Your task to perform on an android device: clear history in the chrome app Image 0: 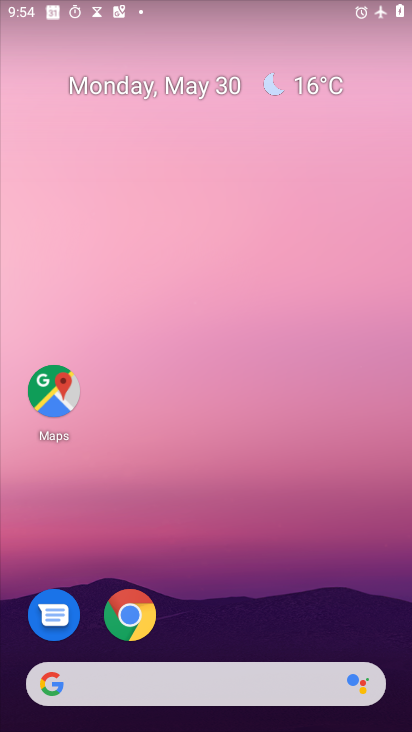
Step 0: drag from (360, 519) to (281, 3)
Your task to perform on an android device: clear history in the chrome app Image 1: 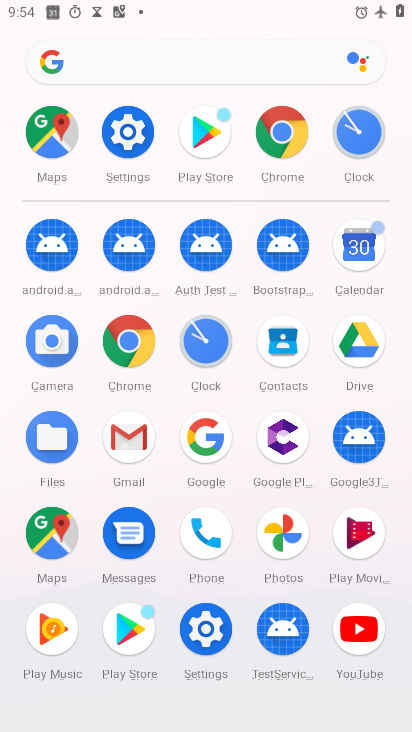
Step 1: click (289, 138)
Your task to perform on an android device: clear history in the chrome app Image 2: 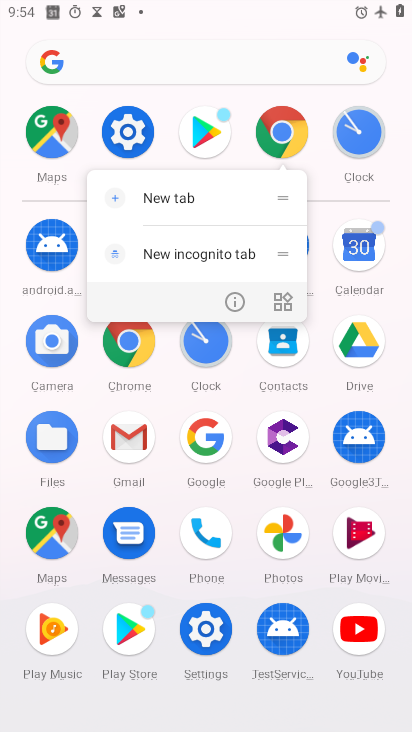
Step 2: click (289, 138)
Your task to perform on an android device: clear history in the chrome app Image 3: 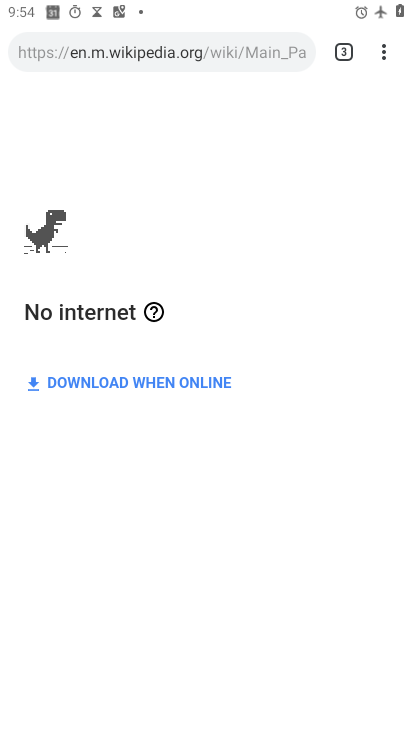
Step 3: task complete